Your task to perform on an android device: What is the recent news? Image 0: 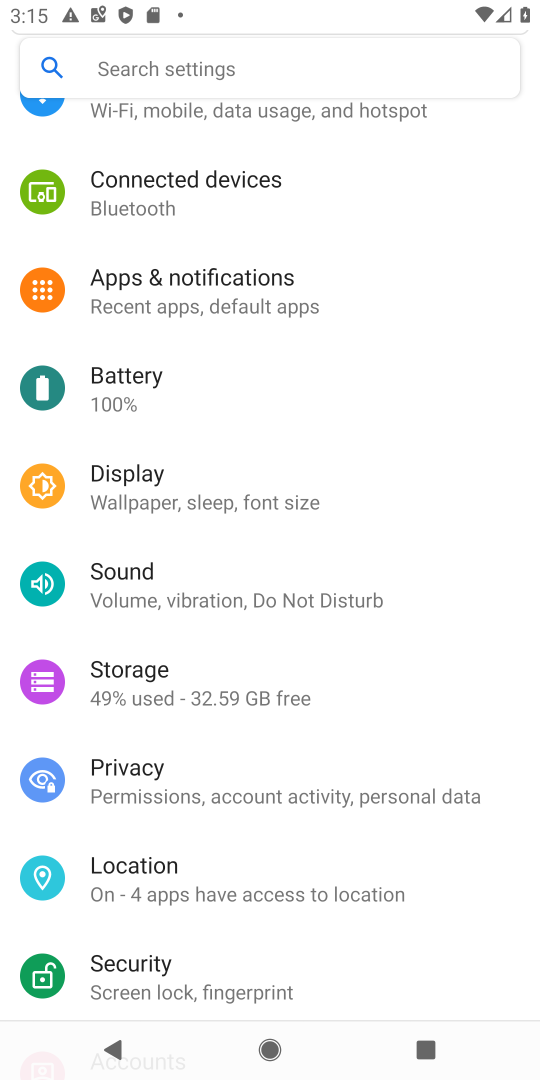
Step 0: press back button
Your task to perform on an android device: What is the recent news? Image 1: 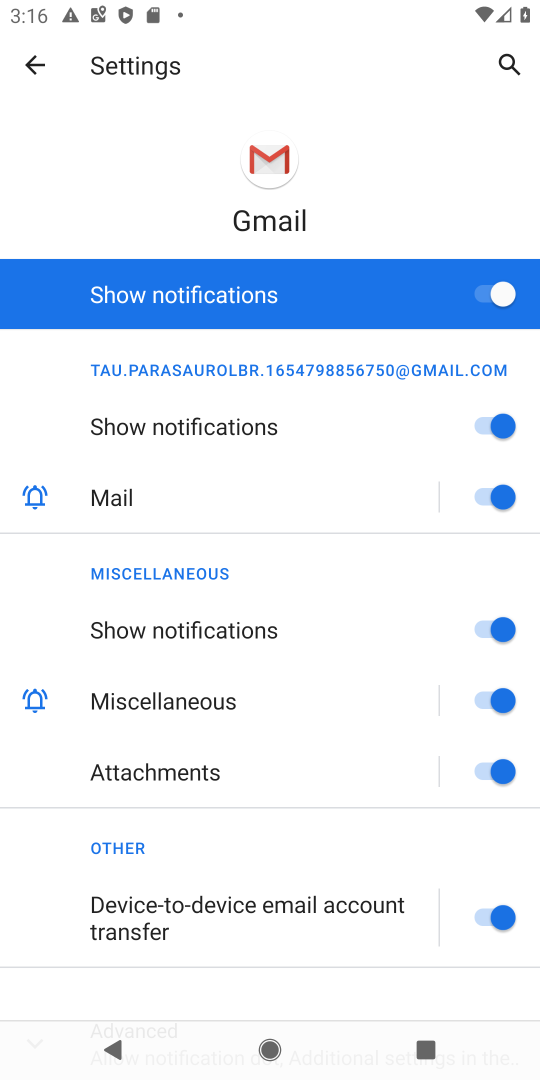
Step 1: press back button
Your task to perform on an android device: What is the recent news? Image 2: 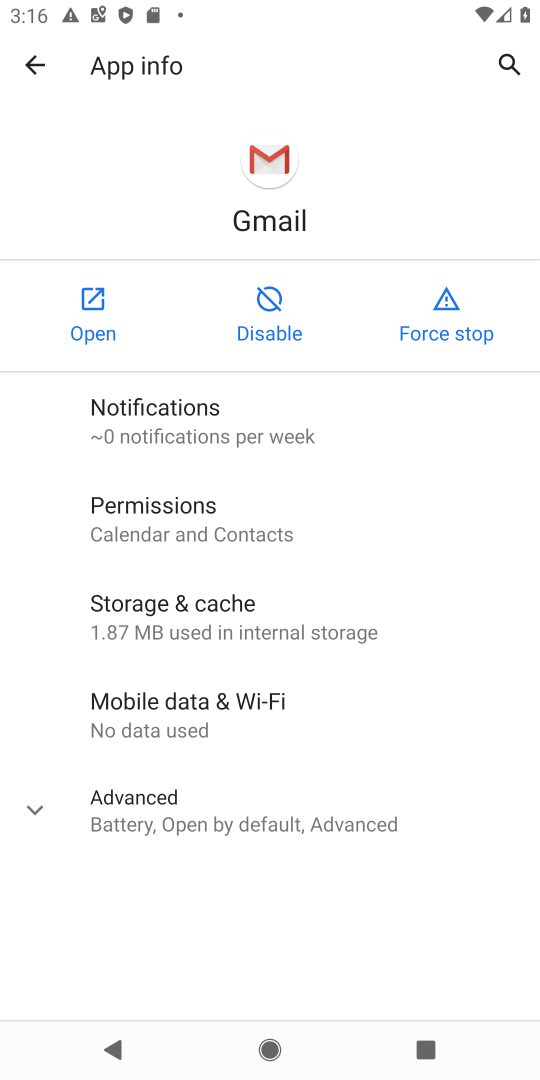
Step 2: press back button
Your task to perform on an android device: What is the recent news? Image 3: 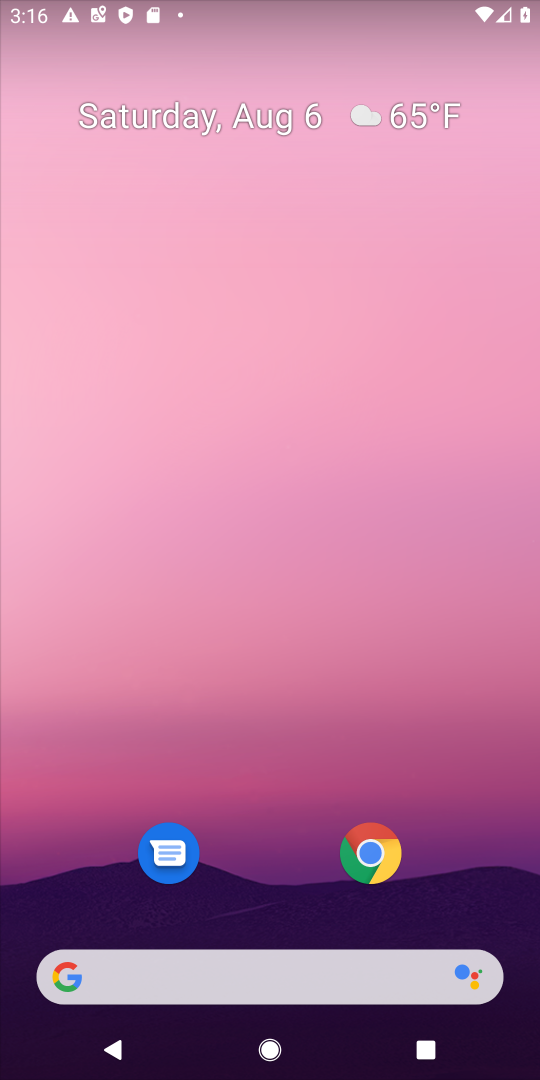
Step 3: click (207, 979)
Your task to perform on an android device: What is the recent news? Image 4: 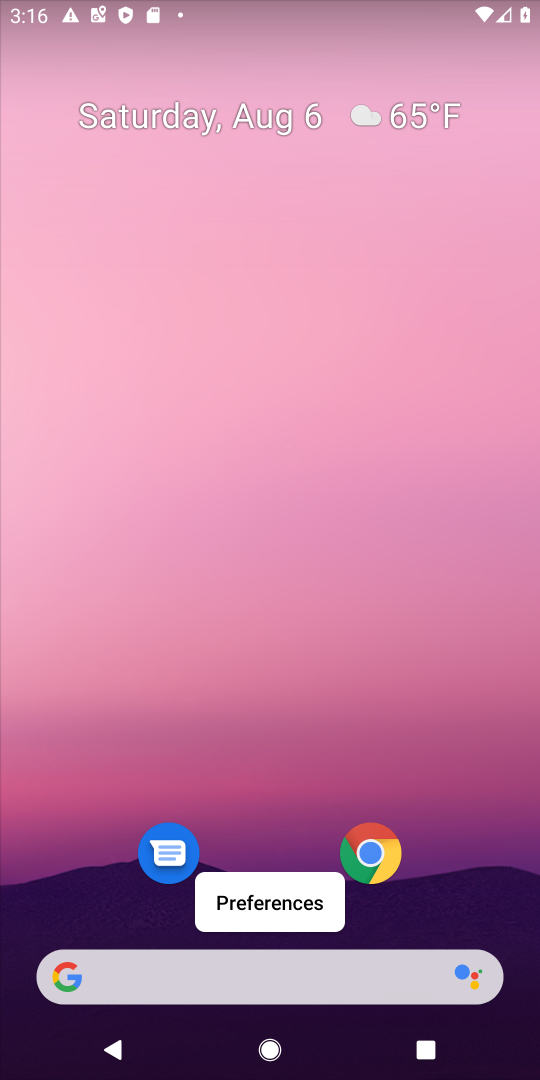
Step 4: click (275, 976)
Your task to perform on an android device: What is the recent news? Image 5: 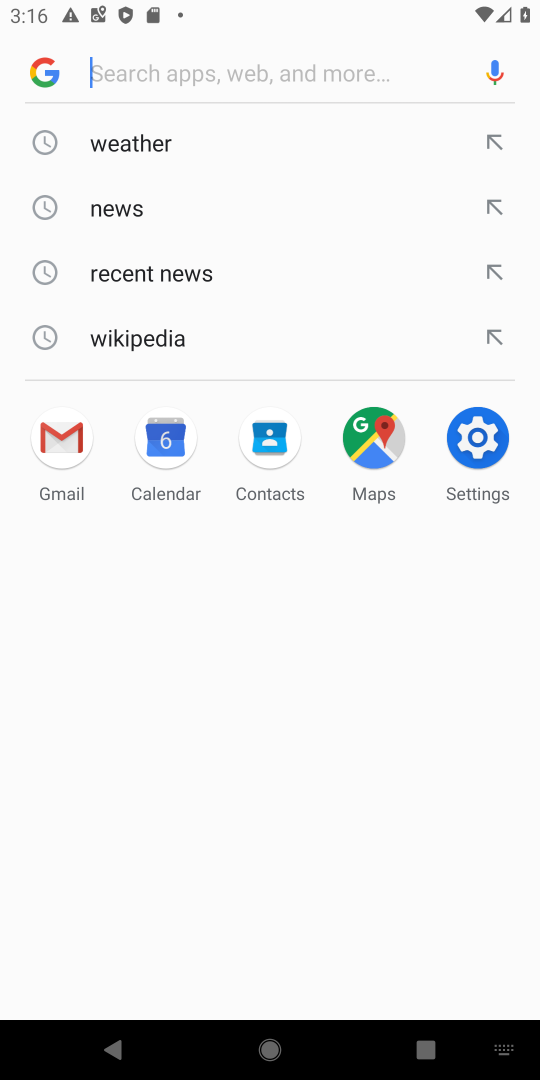
Step 5: click (153, 267)
Your task to perform on an android device: What is the recent news? Image 6: 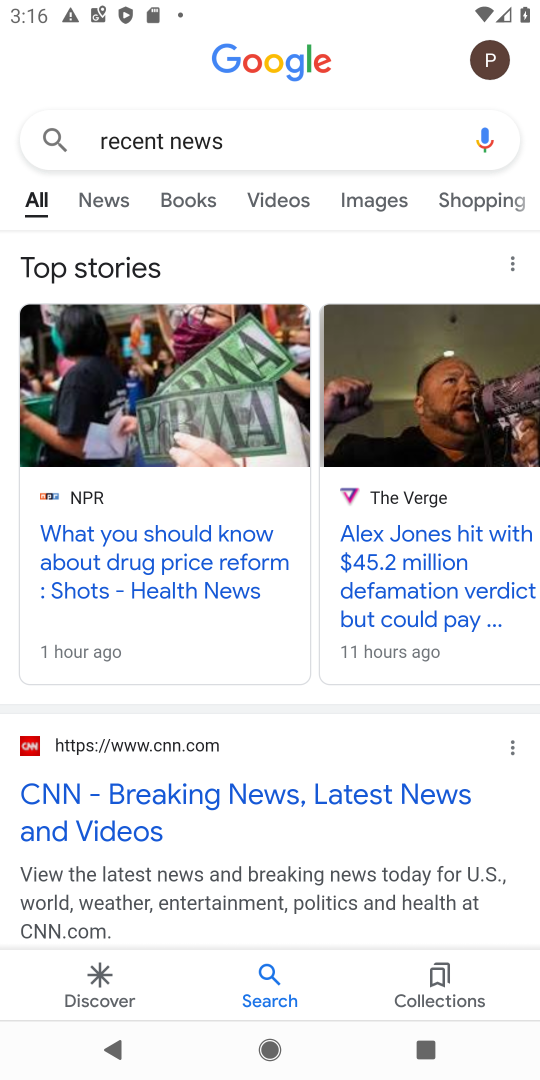
Step 6: task complete